Your task to perform on an android device: Show me popular videos on Youtube Image 0: 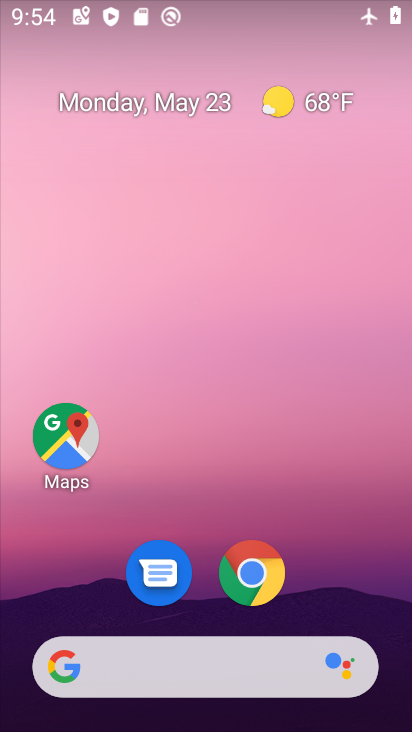
Step 0: drag from (324, 601) to (369, 192)
Your task to perform on an android device: Show me popular videos on Youtube Image 1: 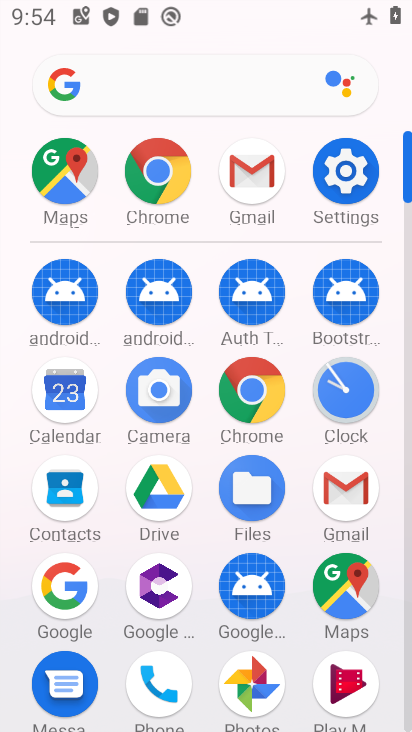
Step 1: drag from (238, 480) to (288, 222)
Your task to perform on an android device: Show me popular videos on Youtube Image 2: 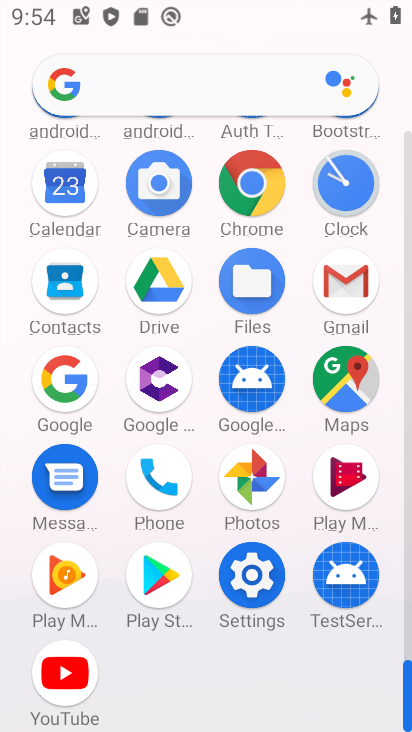
Step 2: click (67, 680)
Your task to perform on an android device: Show me popular videos on Youtube Image 3: 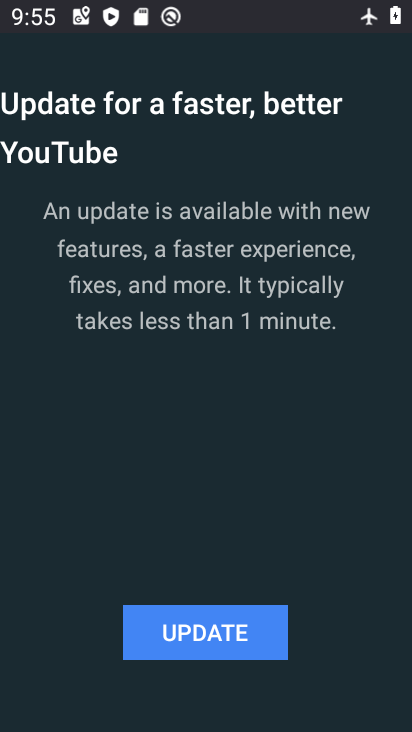
Step 3: task complete